Your task to perform on an android device: Open Android settings Image 0: 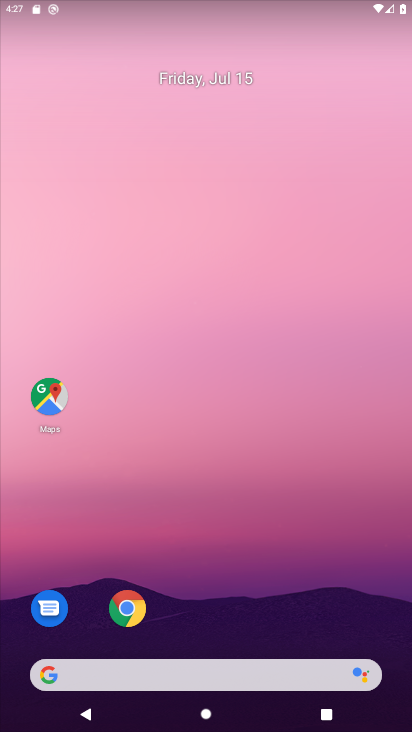
Step 0: drag from (207, 644) to (199, 17)
Your task to perform on an android device: Open Android settings Image 1: 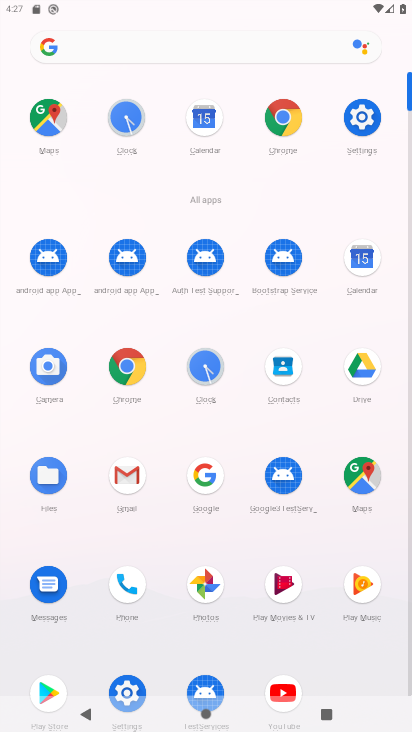
Step 1: click (362, 134)
Your task to perform on an android device: Open Android settings Image 2: 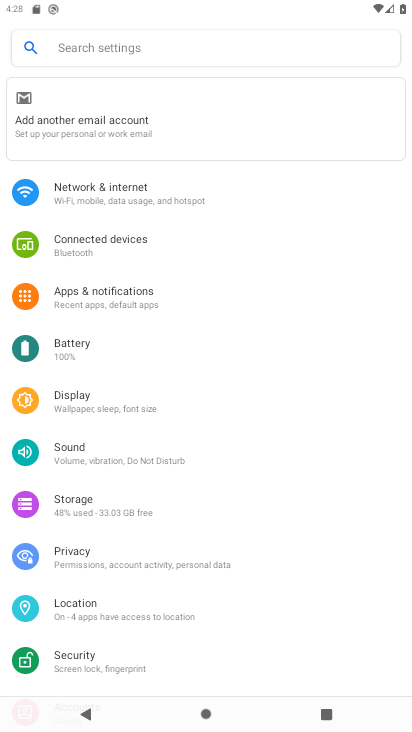
Step 2: drag from (154, 663) to (158, 306)
Your task to perform on an android device: Open Android settings Image 3: 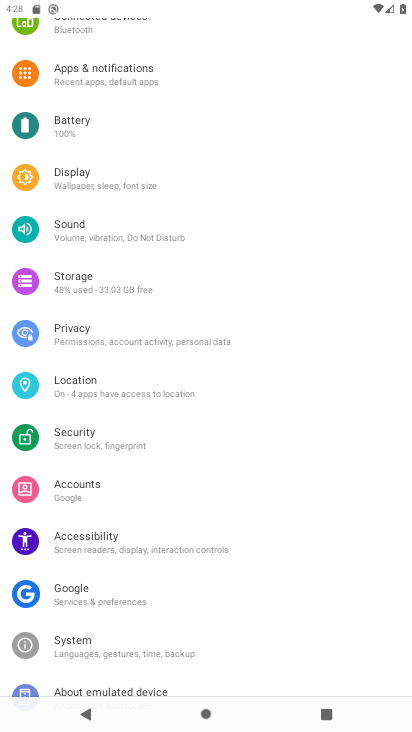
Step 3: drag from (123, 613) to (100, 217)
Your task to perform on an android device: Open Android settings Image 4: 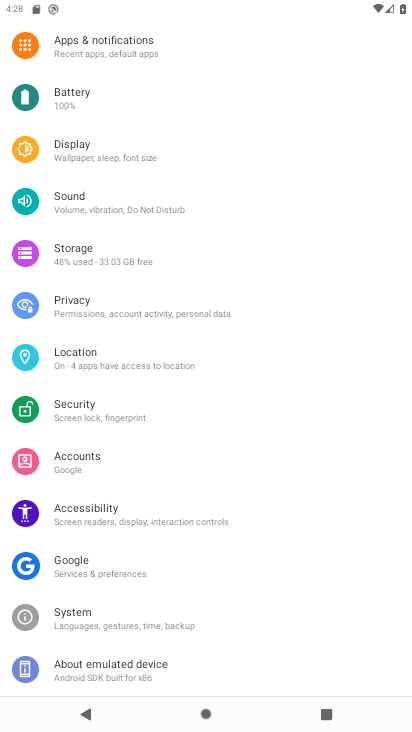
Step 4: click (131, 668)
Your task to perform on an android device: Open Android settings Image 5: 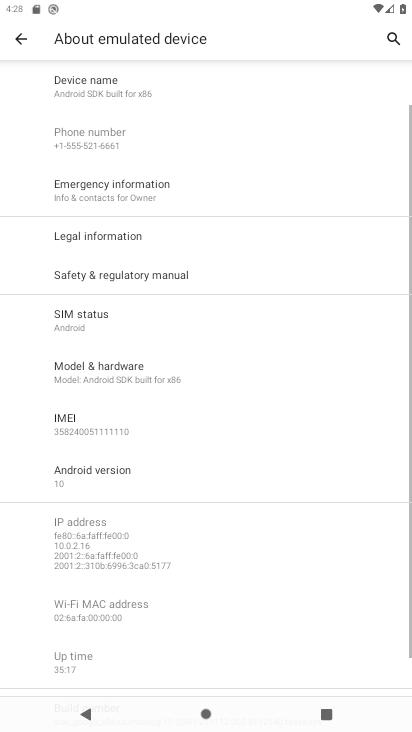
Step 5: click (108, 467)
Your task to perform on an android device: Open Android settings Image 6: 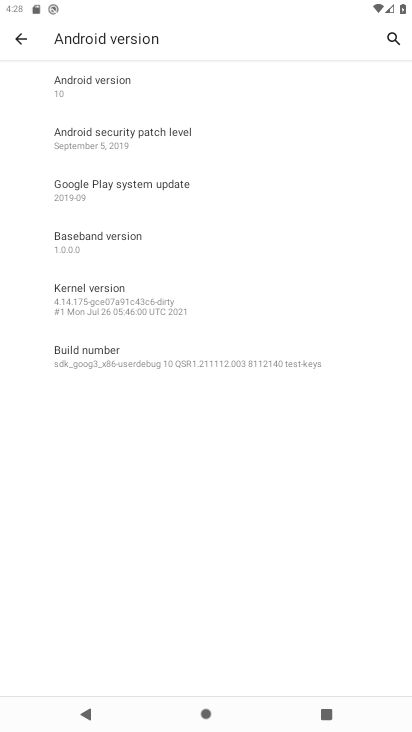
Step 6: task complete